Your task to perform on an android device: turn off improve location accuracy Image 0: 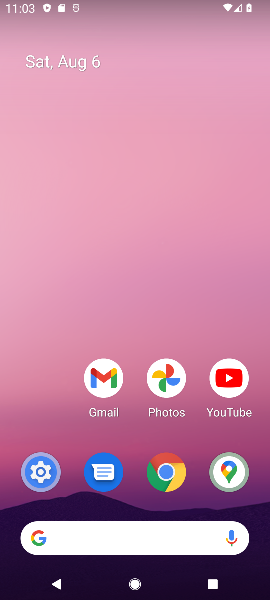
Step 0: drag from (188, 483) to (133, 53)
Your task to perform on an android device: turn off improve location accuracy Image 1: 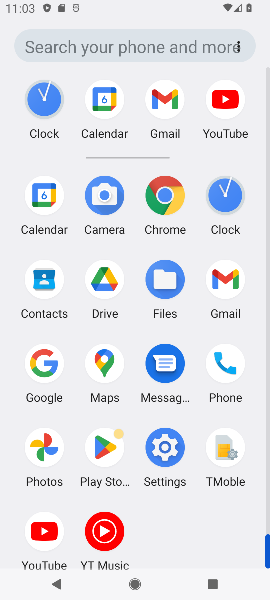
Step 1: click (162, 447)
Your task to perform on an android device: turn off improve location accuracy Image 2: 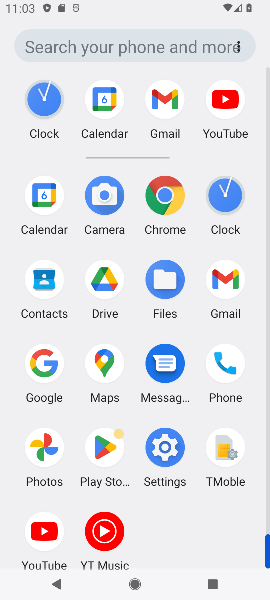
Step 2: click (162, 447)
Your task to perform on an android device: turn off improve location accuracy Image 3: 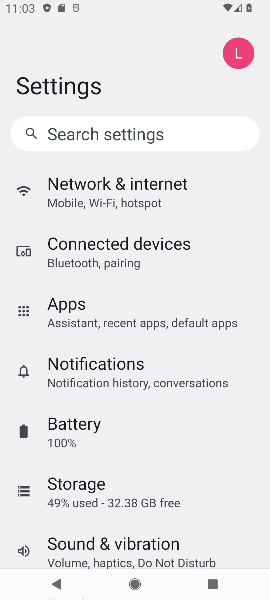
Step 3: click (162, 447)
Your task to perform on an android device: turn off improve location accuracy Image 4: 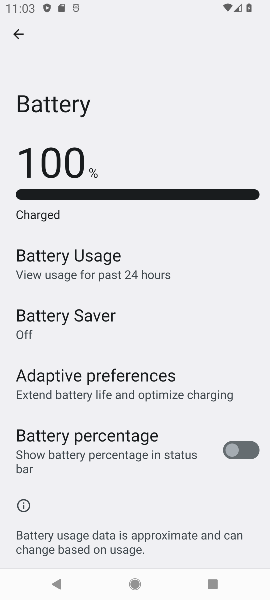
Step 4: click (12, 26)
Your task to perform on an android device: turn off improve location accuracy Image 5: 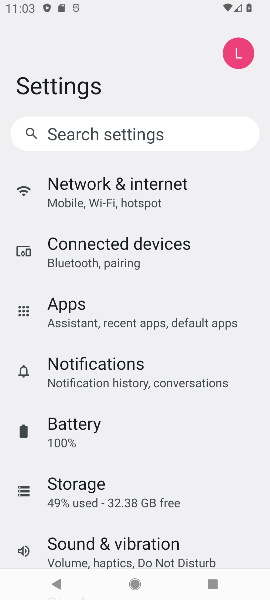
Step 5: drag from (101, 507) to (123, 108)
Your task to perform on an android device: turn off improve location accuracy Image 6: 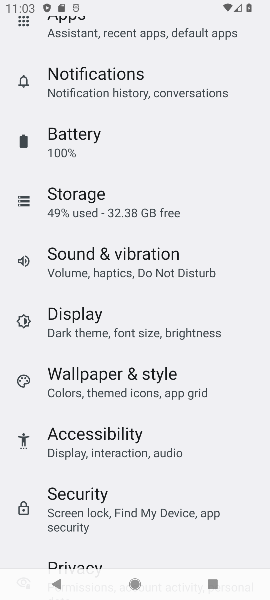
Step 6: drag from (191, 380) to (169, 10)
Your task to perform on an android device: turn off improve location accuracy Image 7: 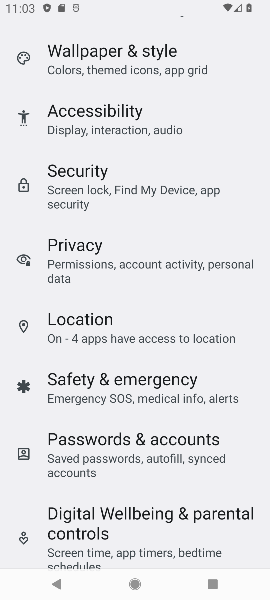
Step 7: drag from (147, 363) to (96, 158)
Your task to perform on an android device: turn off improve location accuracy Image 8: 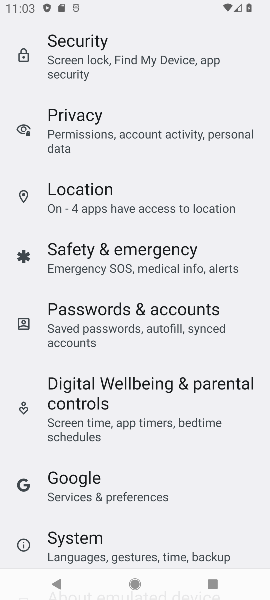
Step 8: click (129, 217)
Your task to perform on an android device: turn off improve location accuracy Image 9: 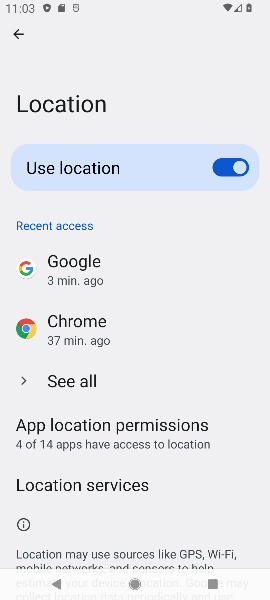
Step 9: drag from (80, 485) to (107, 486)
Your task to perform on an android device: turn off improve location accuracy Image 10: 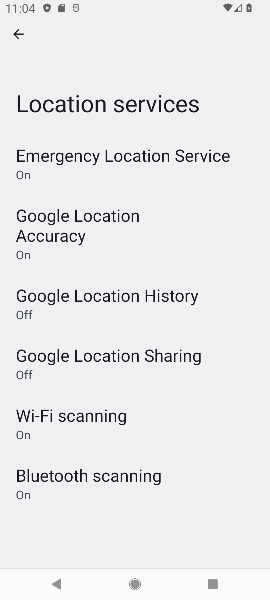
Step 10: click (51, 236)
Your task to perform on an android device: turn off improve location accuracy Image 11: 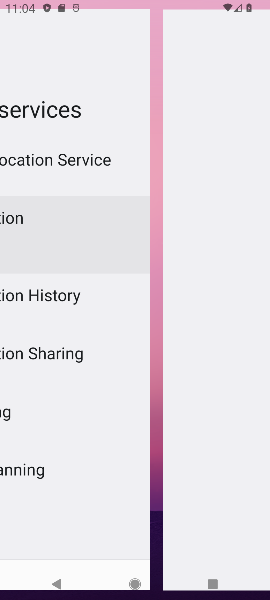
Step 11: click (51, 239)
Your task to perform on an android device: turn off improve location accuracy Image 12: 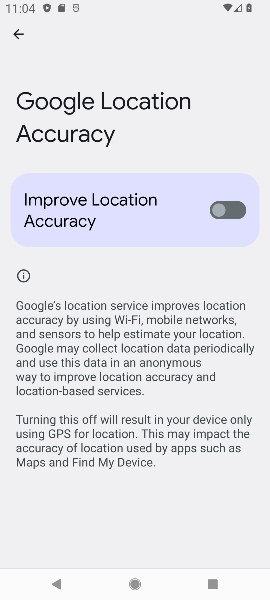
Step 12: task complete